Your task to perform on an android device: Open the phone app and click the voicemail tab. Image 0: 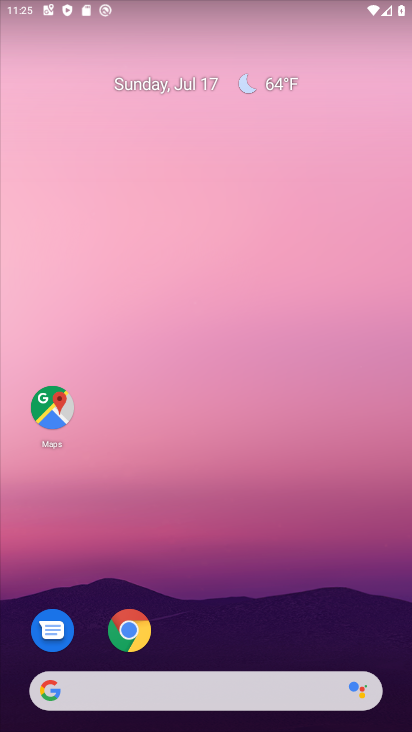
Step 0: drag from (394, 651) to (341, 171)
Your task to perform on an android device: Open the phone app and click the voicemail tab. Image 1: 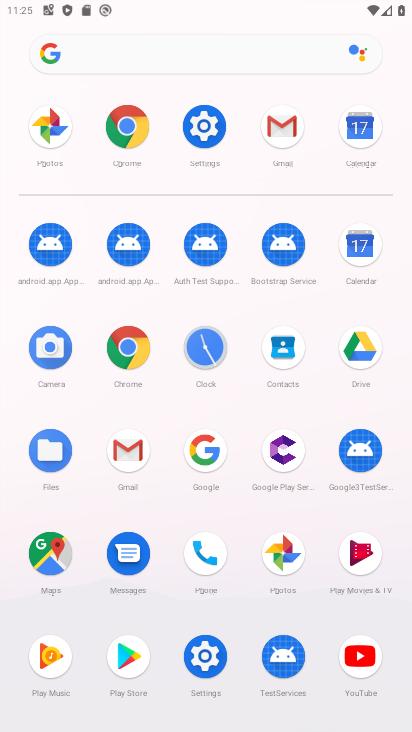
Step 1: click (199, 556)
Your task to perform on an android device: Open the phone app and click the voicemail tab. Image 2: 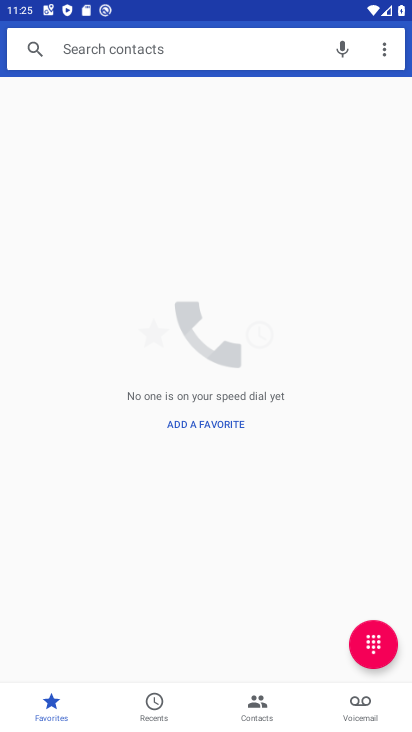
Step 2: click (358, 687)
Your task to perform on an android device: Open the phone app and click the voicemail tab. Image 3: 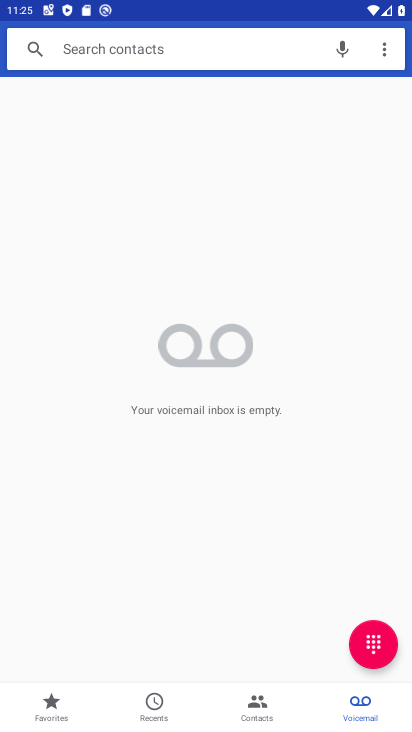
Step 3: task complete